Your task to perform on an android device: Check the news Image 0: 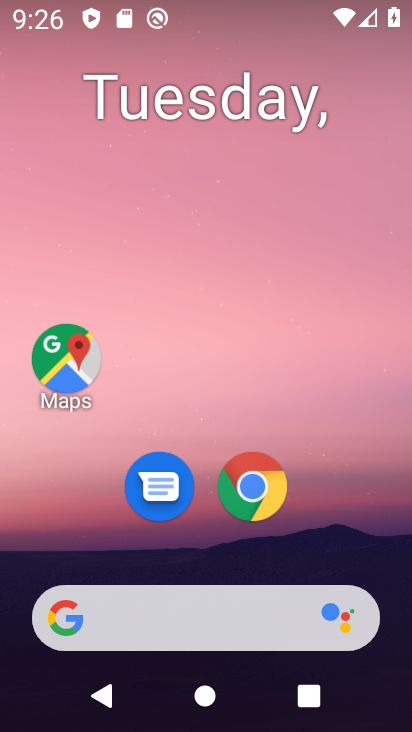
Step 0: press home button
Your task to perform on an android device: Check the news Image 1: 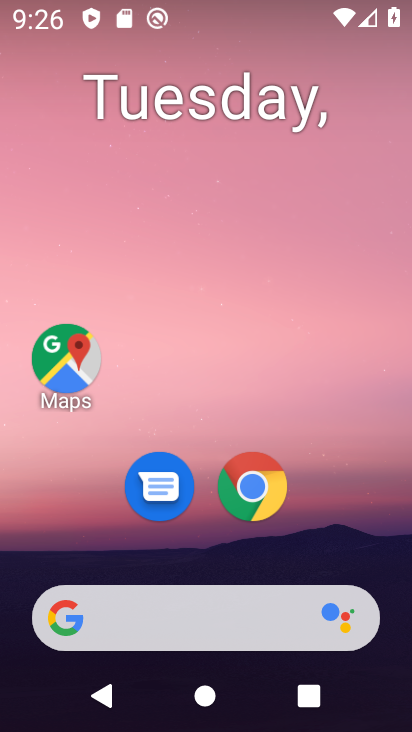
Step 1: task complete